Your task to perform on an android device: Open calendar and show me the second week of next month Image 0: 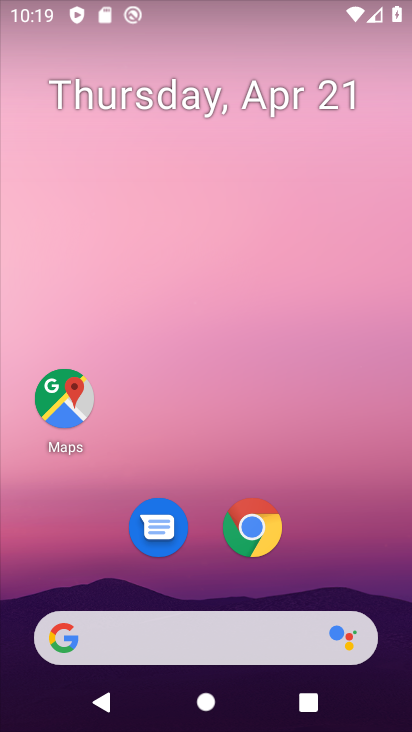
Step 0: drag from (310, 358) to (312, 135)
Your task to perform on an android device: Open calendar and show me the second week of next month Image 1: 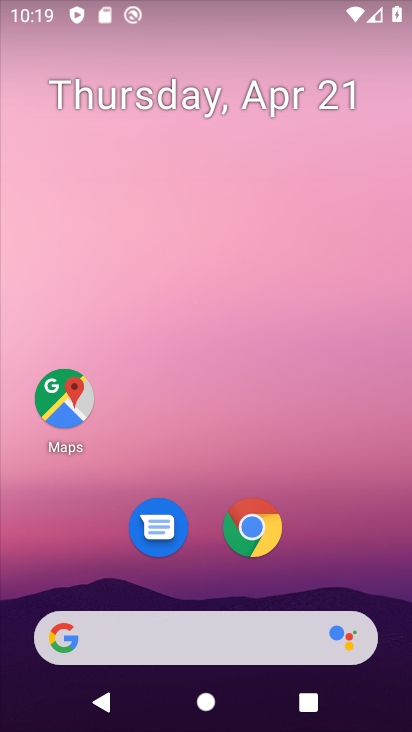
Step 1: drag from (290, 566) to (308, 125)
Your task to perform on an android device: Open calendar and show me the second week of next month Image 2: 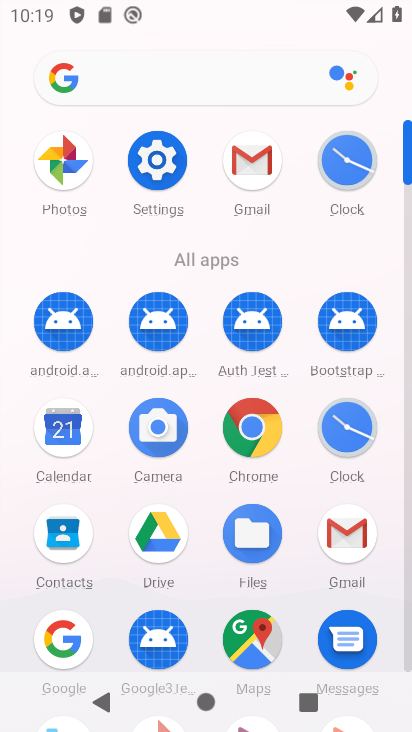
Step 2: click (68, 433)
Your task to perform on an android device: Open calendar and show me the second week of next month Image 3: 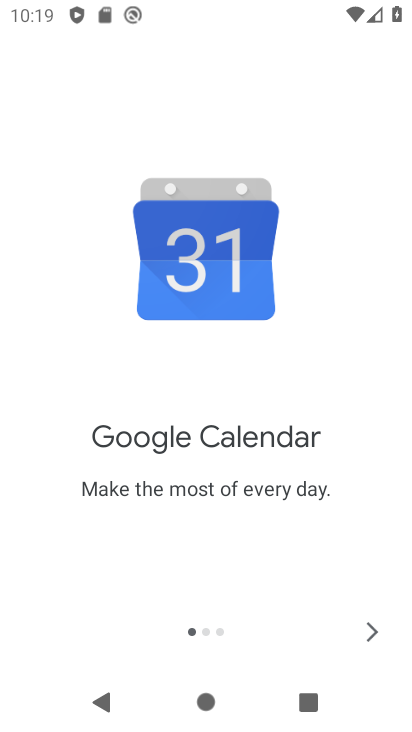
Step 3: click (367, 643)
Your task to perform on an android device: Open calendar and show me the second week of next month Image 4: 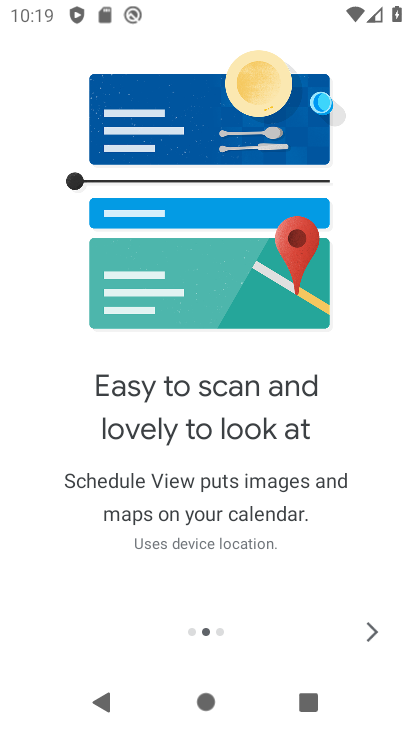
Step 4: click (367, 643)
Your task to perform on an android device: Open calendar and show me the second week of next month Image 5: 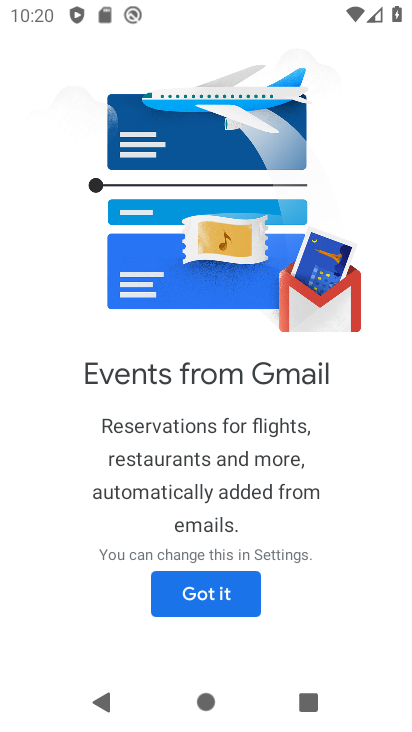
Step 5: click (226, 594)
Your task to perform on an android device: Open calendar and show me the second week of next month Image 6: 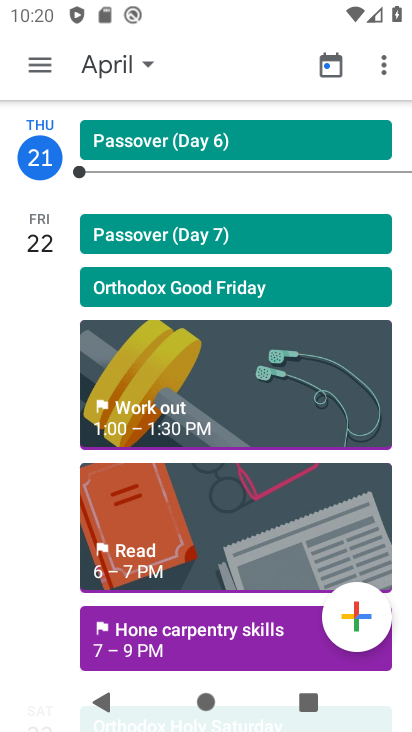
Step 6: click (143, 63)
Your task to perform on an android device: Open calendar and show me the second week of next month Image 7: 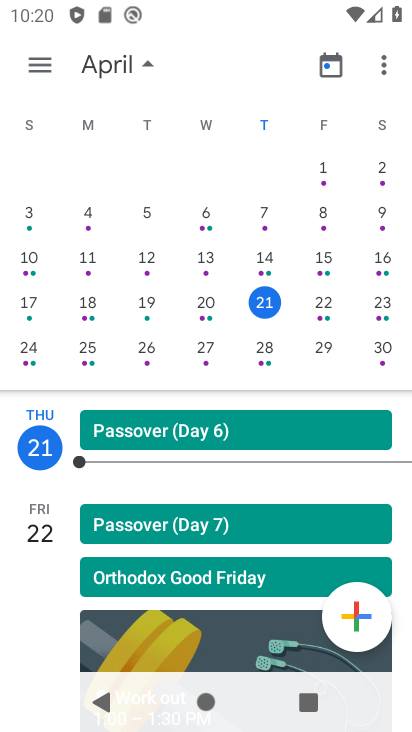
Step 7: drag from (357, 328) to (2, 327)
Your task to perform on an android device: Open calendar and show me the second week of next month Image 8: 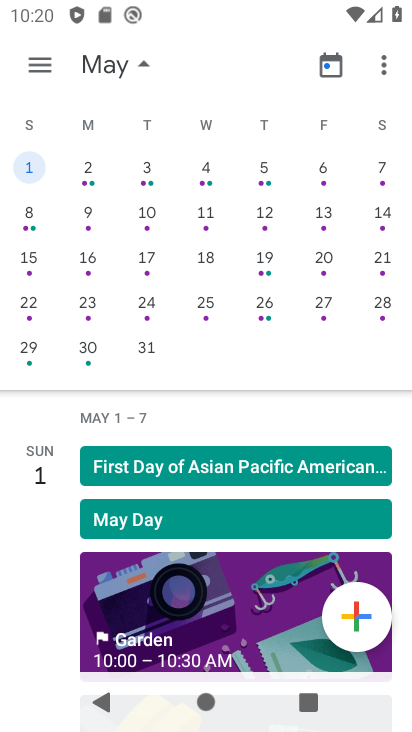
Step 8: click (35, 228)
Your task to perform on an android device: Open calendar and show me the second week of next month Image 9: 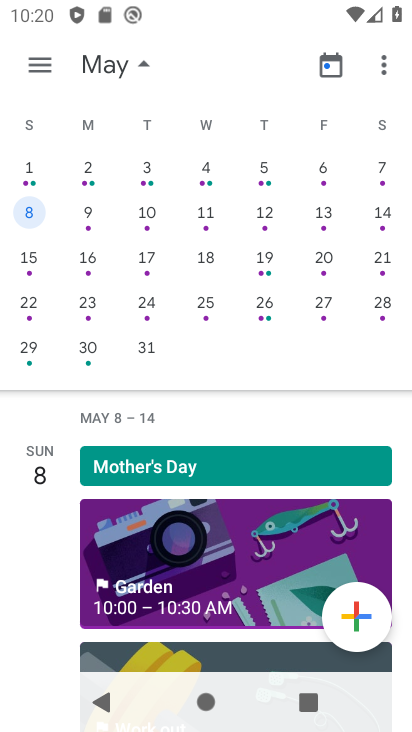
Step 9: click (86, 224)
Your task to perform on an android device: Open calendar and show me the second week of next month Image 10: 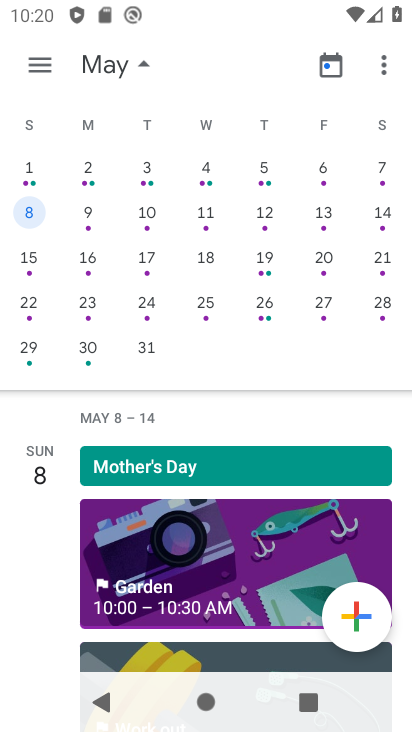
Step 10: click (143, 223)
Your task to perform on an android device: Open calendar and show me the second week of next month Image 11: 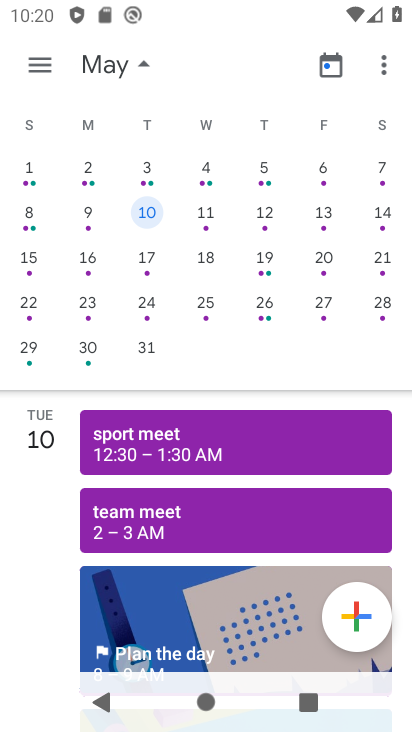
Step 11: click (206, 230)
Your task to perform on an android device: Open calendar and show me the second week of next month Image 12: 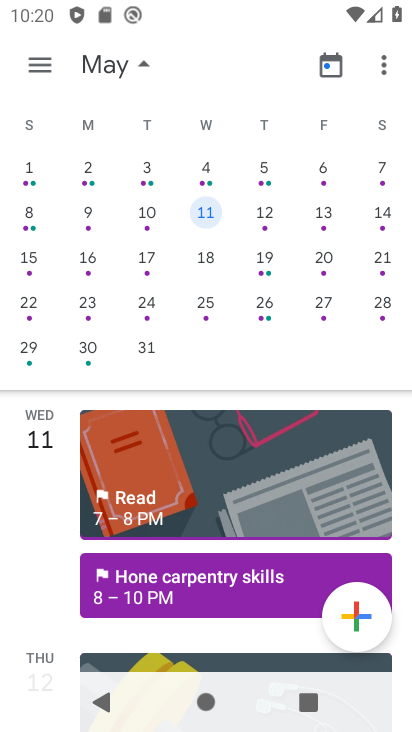
Step 12: click (270, 227)
Your task to perform on an android device: Open calendar and show me the second week of next month Image 13: 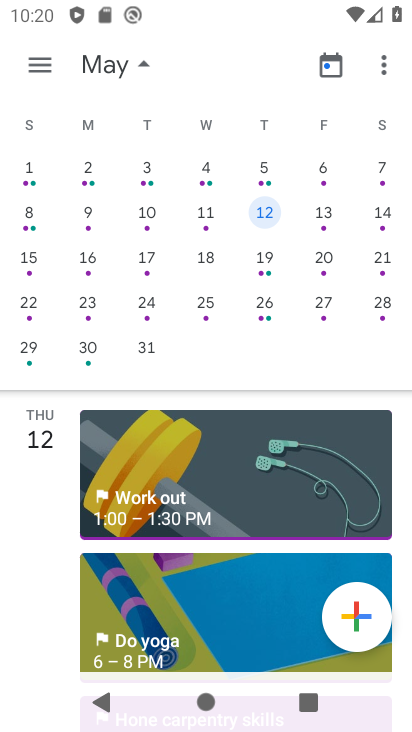
Step 13: click (327, 226)
Your task to perform on an android device: Open calendar and show me the second week of next month Image 14: 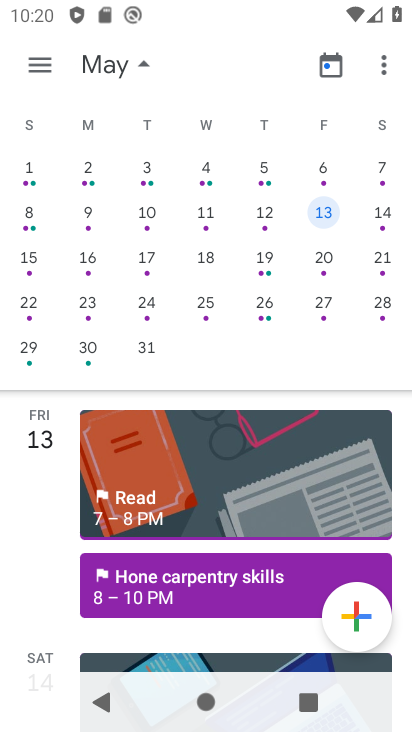
Step 14: click (386, 222)
Your task to perform on an android device: Open calendar and show me the second week of next month Image 15: 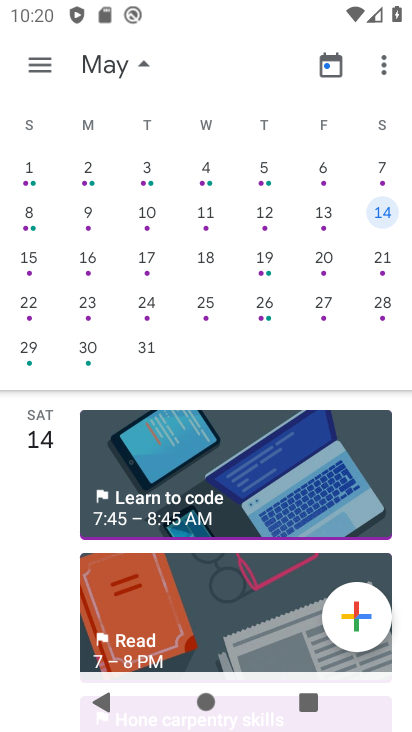
Step 15: task complete